Your task to perform on an android device: open wifi settings Image 0: 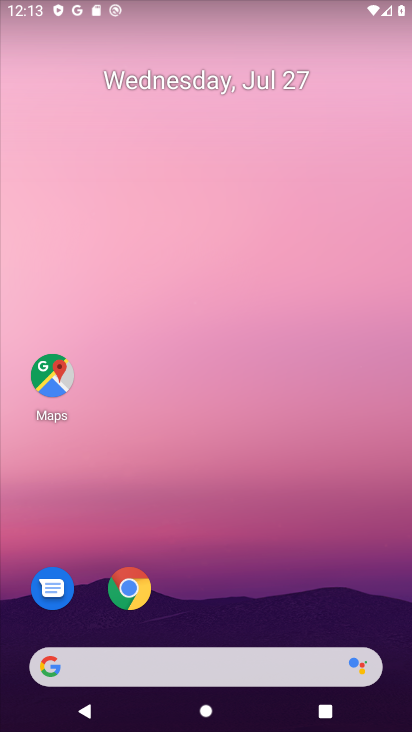
Step 0: drag from (388, 712) to (349, 160)
Your task to perform on an android device: open wifi settings Image 1: 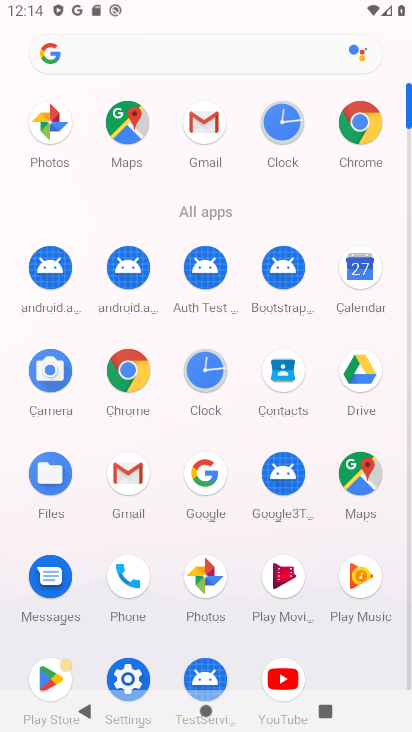
Step 1: click (122, 675)
Your task to perform on an android device: open wifi settings Image 2: 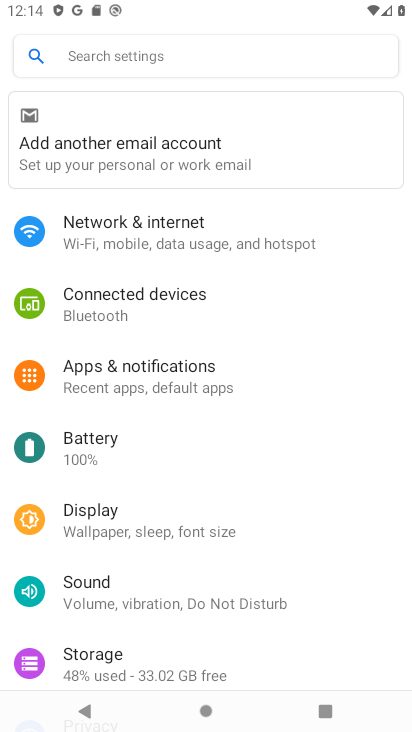
Step 2: click (99, 215)
Your task to perform on an android device: open wifi settings Image 3: 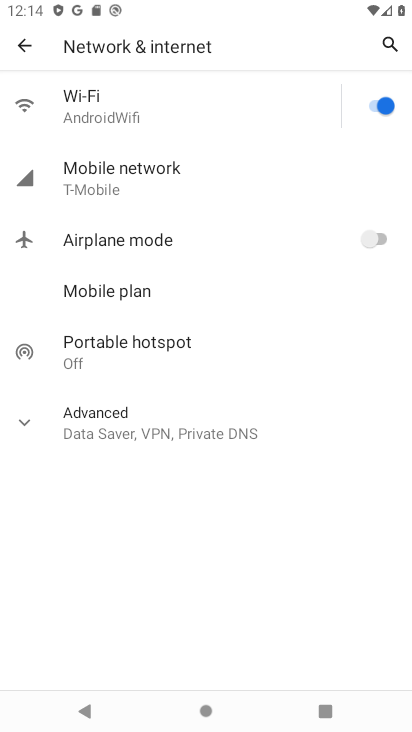
Step 3: click (113, 105)
Your task to perform on an android device: open wifi settings Image 4: 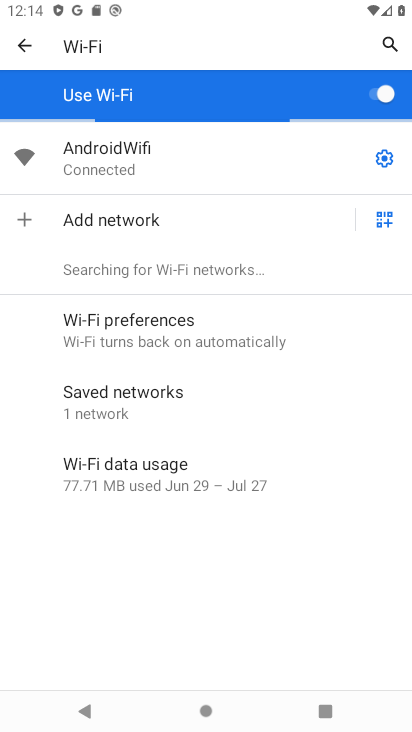
Step 4: click (385, 153)
Your task to perform on an android device: open wifi settings Image 5: 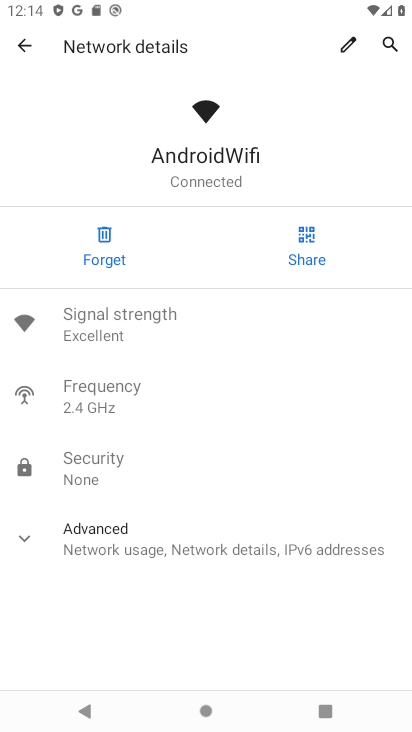
Step 5: click (16, 537)
Your task to perform on an android device: open wifi settings Image 6: 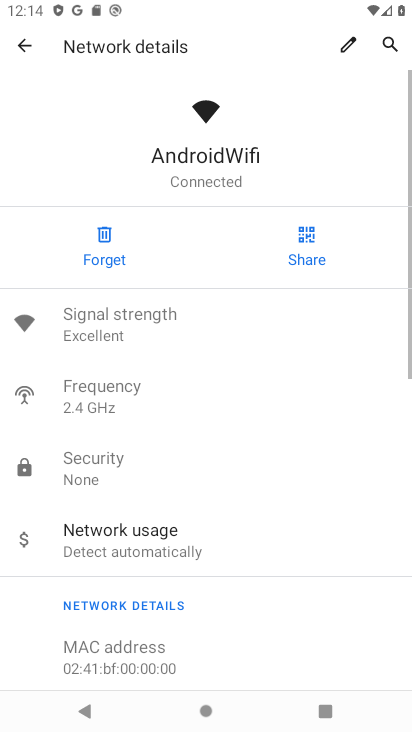
Step 6: task complete